Your task to perform on an android device: turn off sleep mode Image 0: 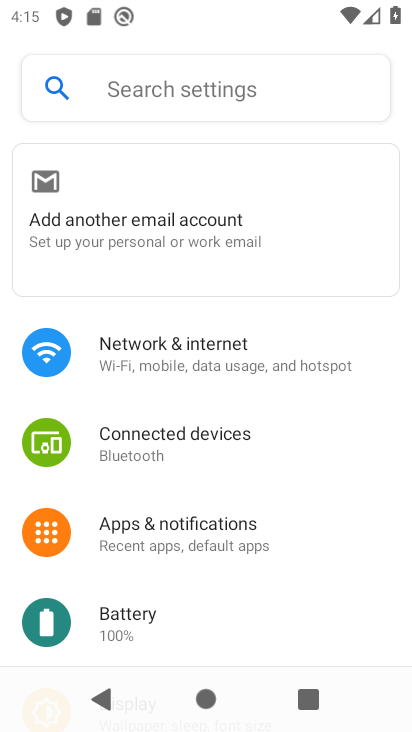
Step 0: drag from (217, 510) to (236, 212)
Your task to perform on an android device: turn off sleep mode Image 1: 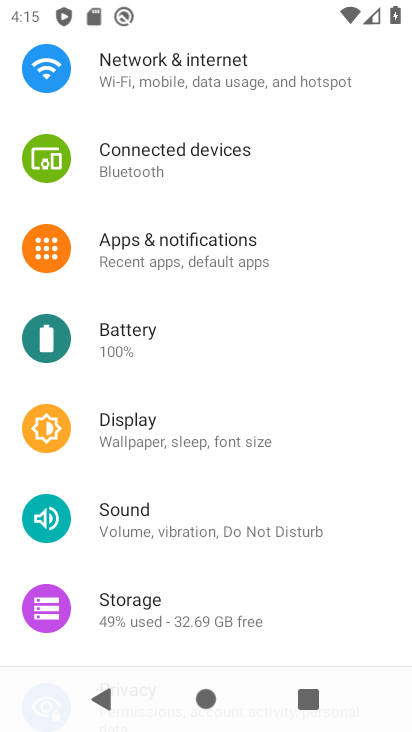
Step 1: click (193, 428)
Your task to perform on an android device: turn off sleep mode Image 2: 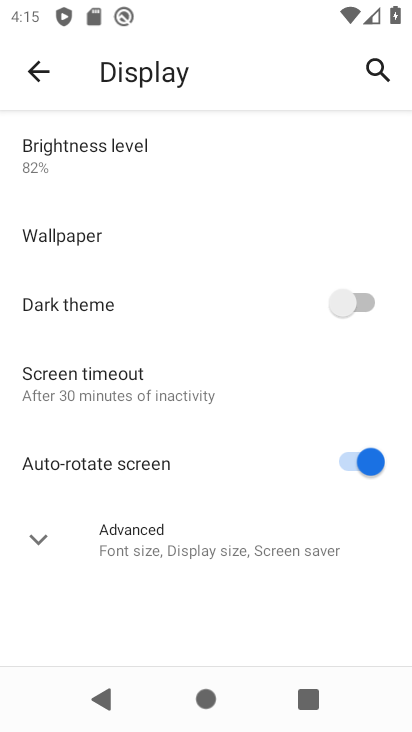
Step 2: click (42, 536)
Your task to perform on an android device: turn off sleep mode Image 3: 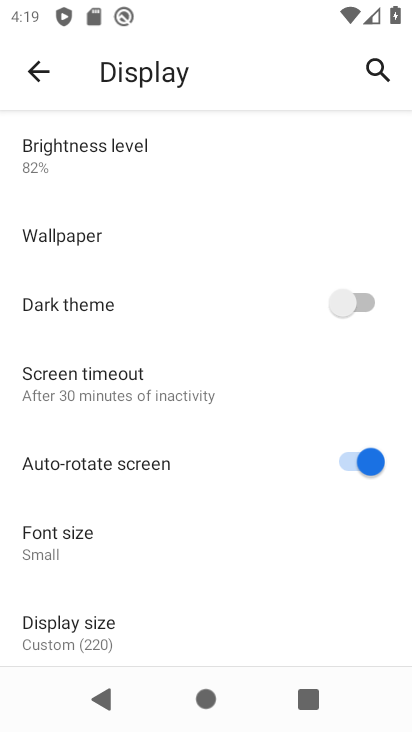
Step 3: task complete